Your task to perform on an android device: turn notification dots on Image 0: 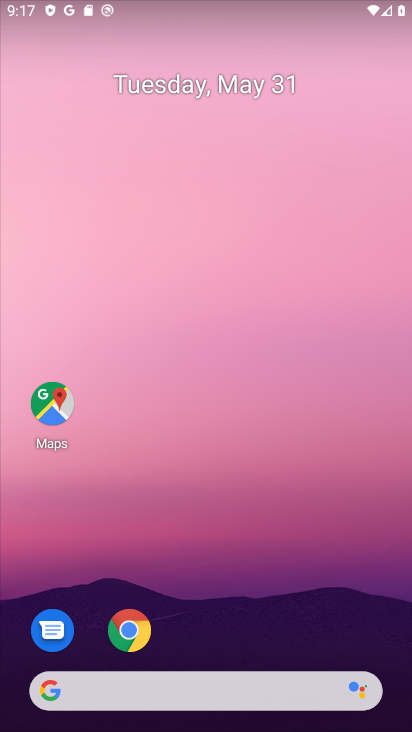
Step 0: drag from (131, 722) to (126, 48)
Your task to perform on an android device: turn notification dots on Image 1: 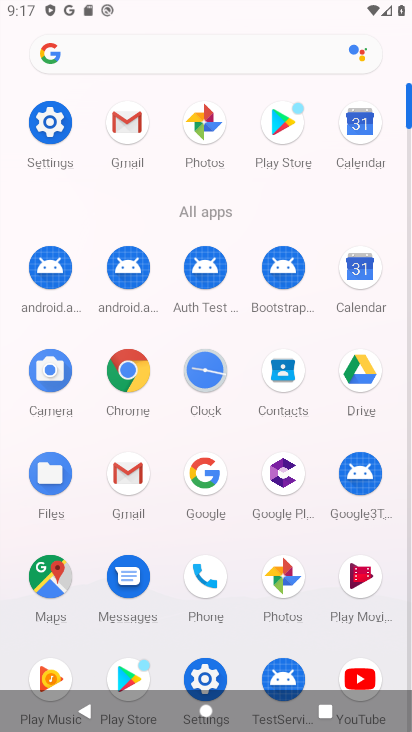
Step 1: click (62, 140)
Your task to perform on an android device: turn notification dots on Image 2: 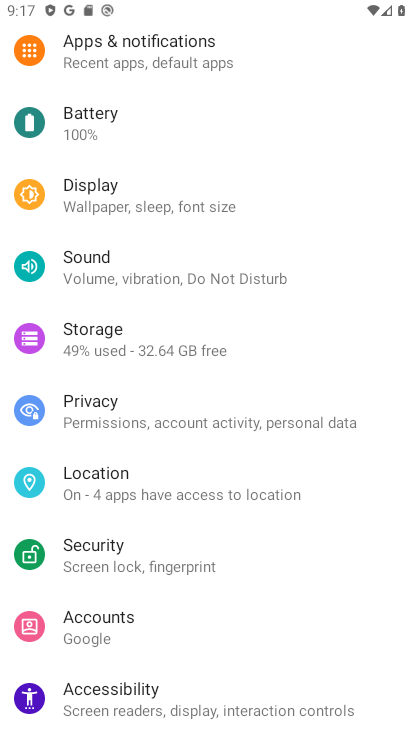
Step 2: click (144, 73)
Your task to perform on an android device: turn notification dots on Image 3: 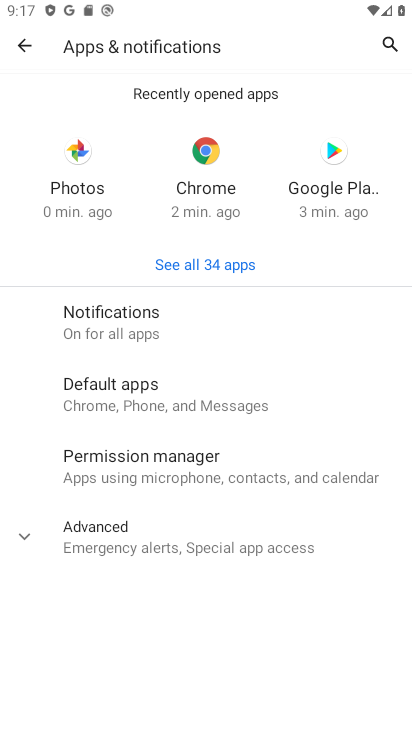
Step 3: click (154, 331)
Your task to perform on an android device: turn notification dots on Image 4: 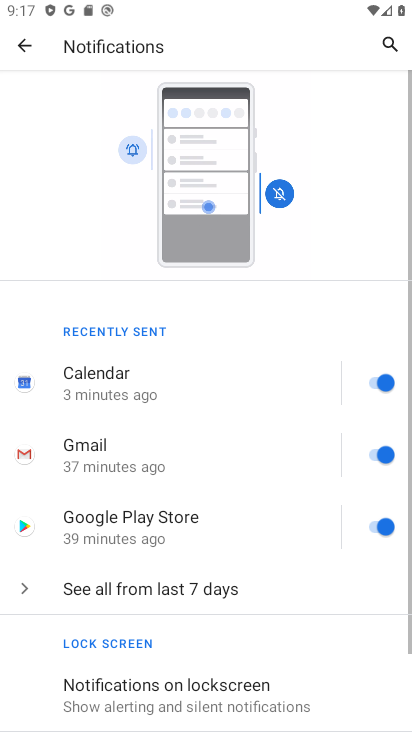
Step 4: drag from (174, 654) to (160, 396)
Your task to perform on an android device: turn notification dots on Image 5: 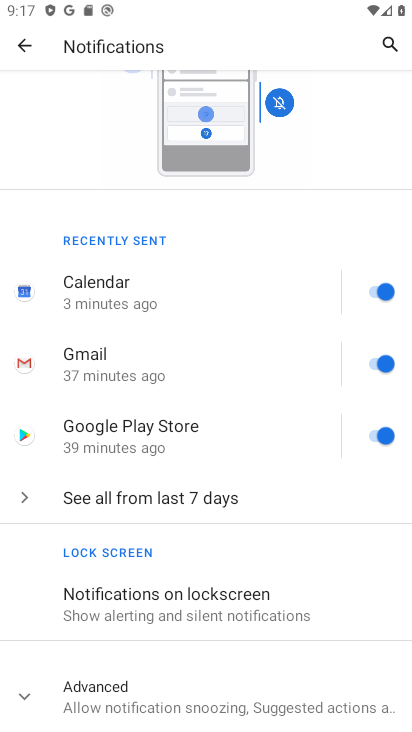
Step 5: click (194, 702)
Your task to perform on an android device: turn notification dots on Image 6: 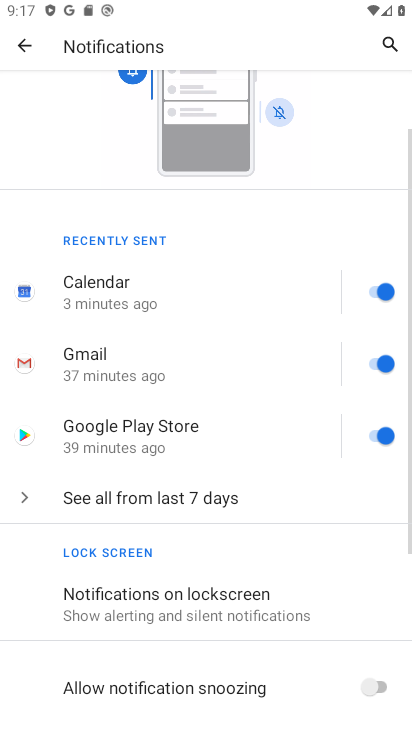
Step 6: task complete